Your task to perform on an android device: see tabs open on other devices in the chrome app Image 0: 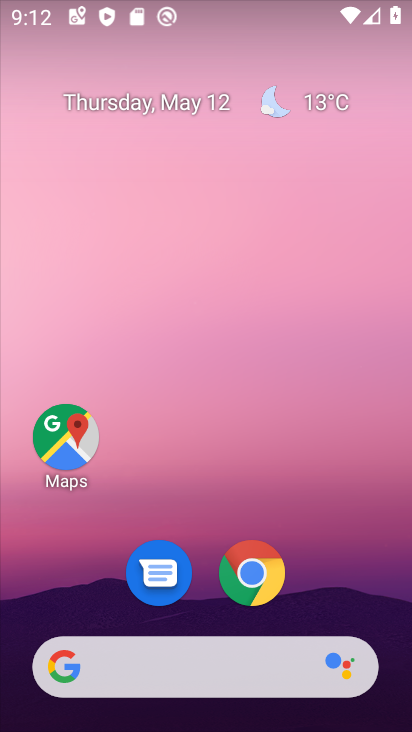
Step 0: click (247, 566)
Your task to perform on an android device: see tabs open on other devices in the chrome app Image 1: 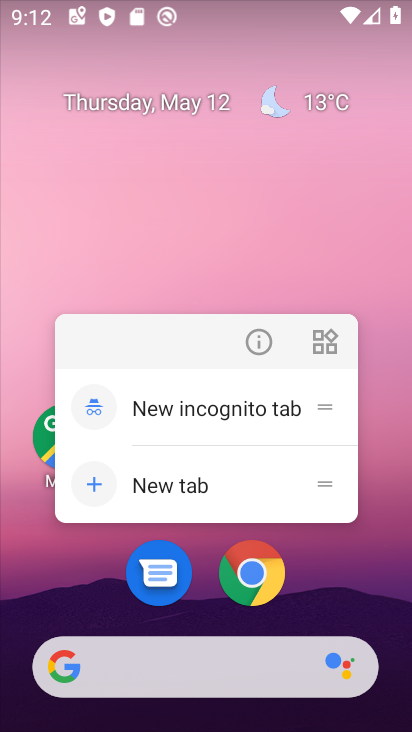
Step 1: click (247, 563)
Your task to perform on an android device: see tabs open on other devices in the chrome app Image 2: 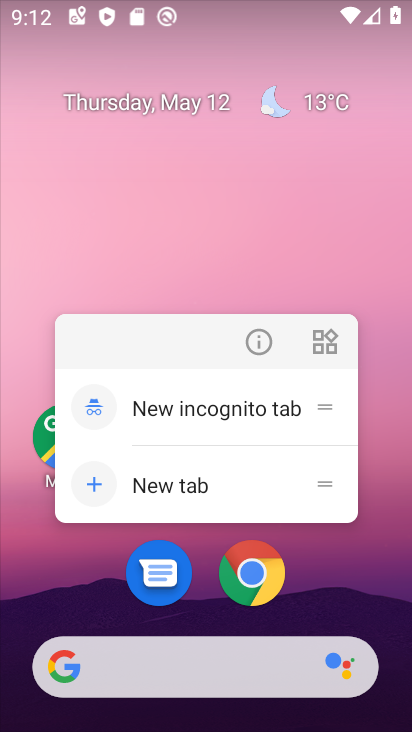
Step 2: click (247, 563)
Your task to perform on an android device: see tabs open on other devices in the chrome app Image 3: 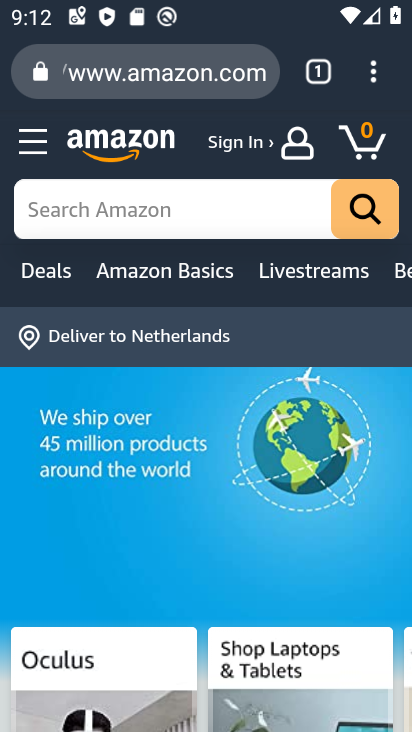
Step 3: click (371, 66)
Your task to perform on an android device: see tabs open on other devices in the chrome app Image 4: 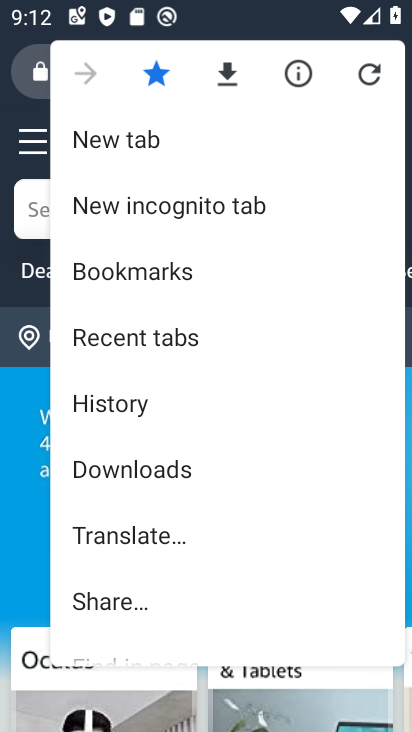
Step 4: drag from (301, 607) to (310, 317)
Your task to perform on an android device: see tabs open on other devices in the chrome app Image 5: 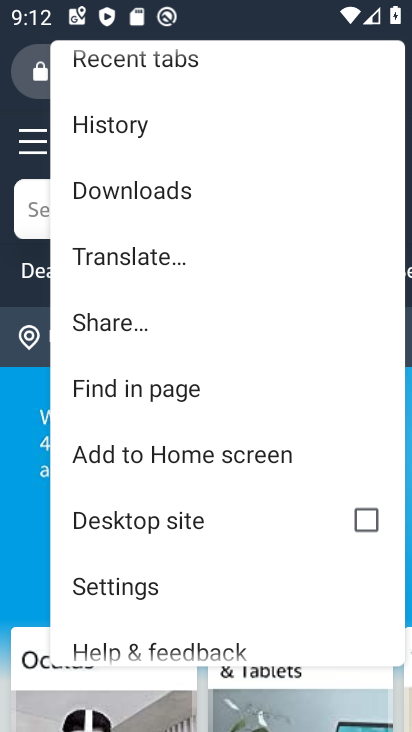
Step 5: drag from (310, 207) to (345, 458)
Your task to perform on an android device: see tabs open on other devices in the chrome app Image 6: 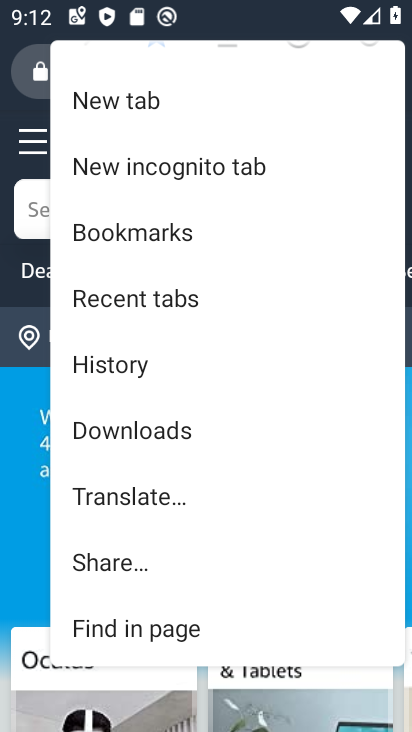
Step 6: click (107, 296)
Your task to perform on an android device: see tabs open on other devices in the chrome app Image 7: 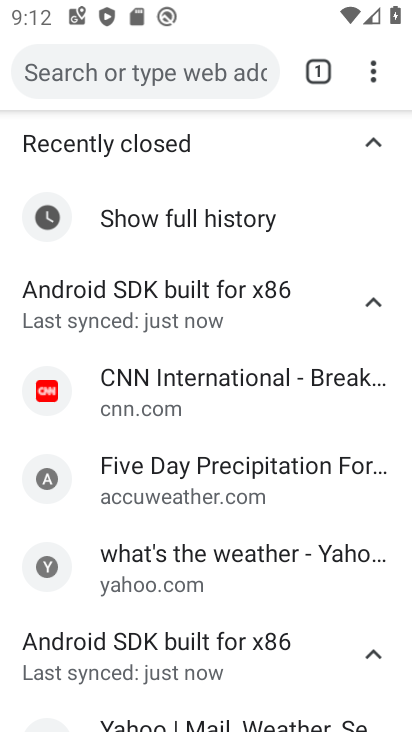
Step 7: task complete